Your task to perform on an android device: toggle translation in the chrome app Image 0: 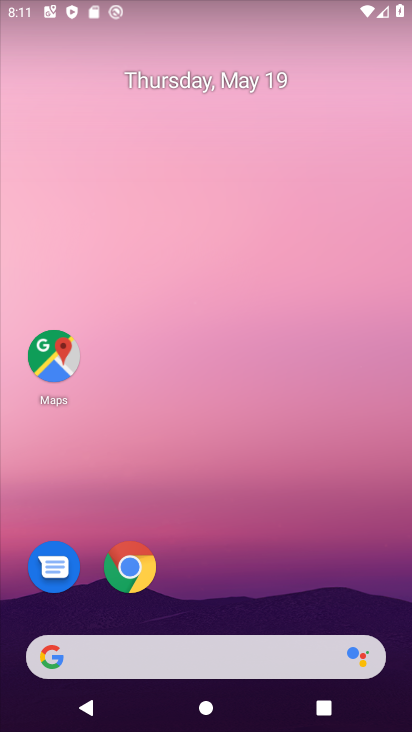
Step 0: click (143, 572)
Your task to perform on an android device: toggle translation in the chrome app Image 1: 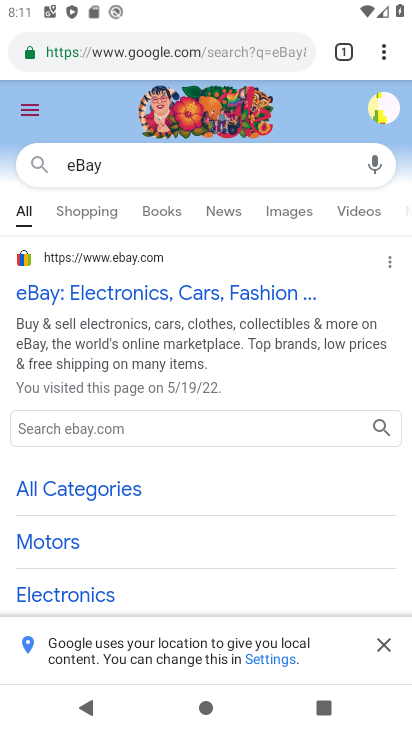
Step 1: click (392, 50)
Your task to perform on an android device: toggle translation in the chrome app Image 2: 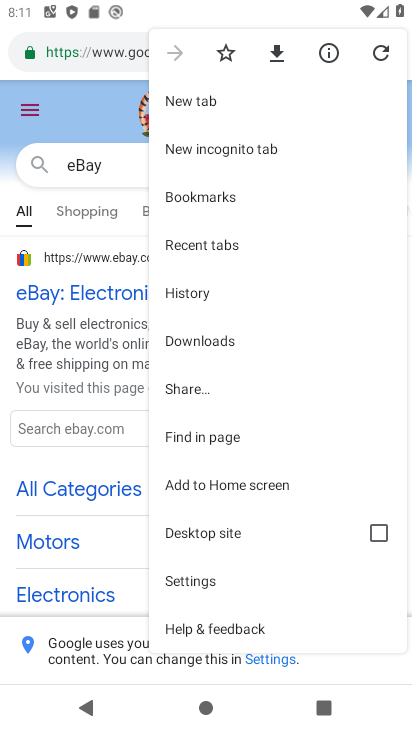
Step 2: click (207, 578)
Your task to perform on an android device: toggle translation in the chrome app Image 3: 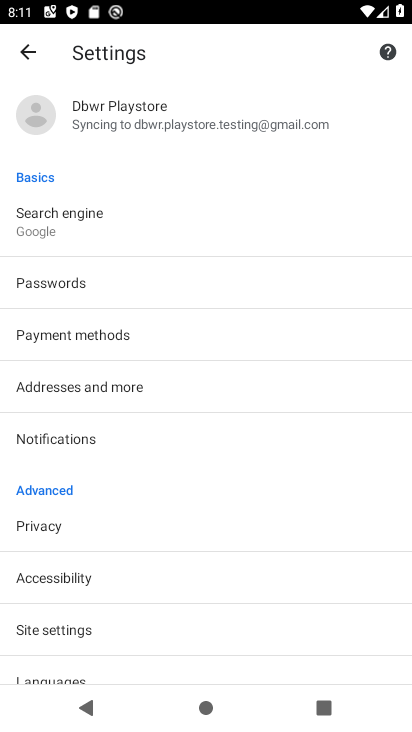
Step 3: drag from (100, 598) to (98, 488)
Your task to perform on an android device: toggle translation in the chrome app Image 4: 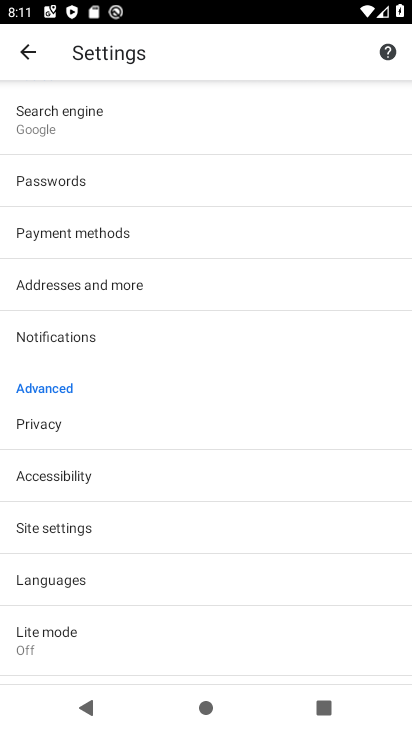
Step 4: click (78, 587)
Your task to perform on an android device: toggle translation in the chrome app Image 5: 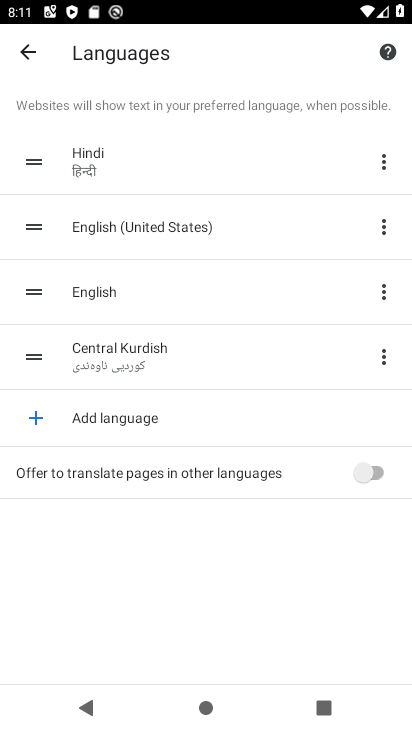
Step 5: click (388, 467)
Your task to perform on an android device: toggle translation in the chrome app Image 6: 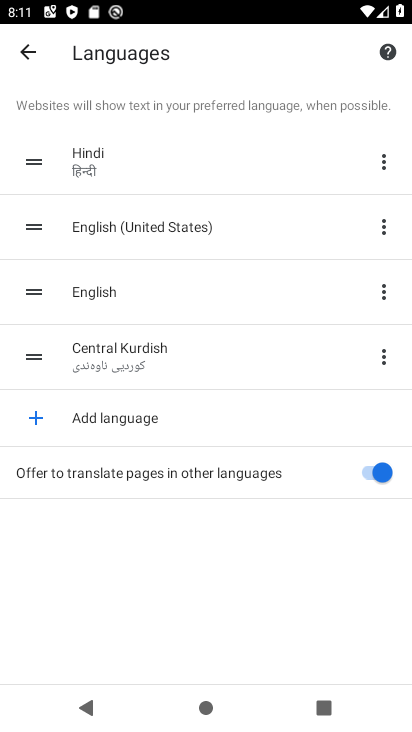
Step 6: task complete